Your task to perform on an android device: Go to wifi settings Image 0: 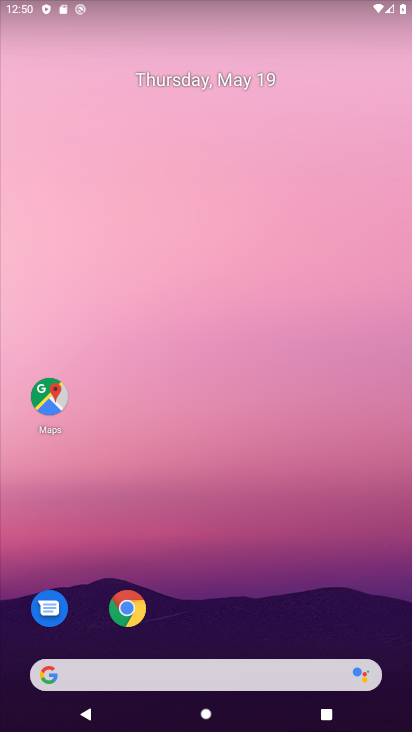
Step 0: drag from (223, 650) to (240, 227)
Your task to perform on an android device: Go to wifi settings Image 1: 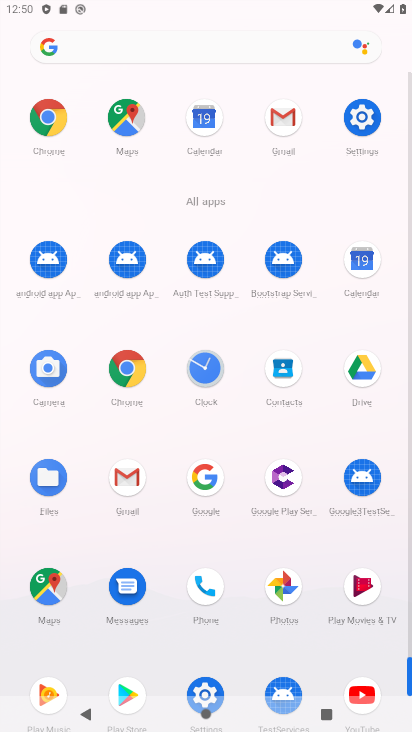
Step 1: click (363, 125)
Your task to perform on an android device: Go to wifi settings Image 2: 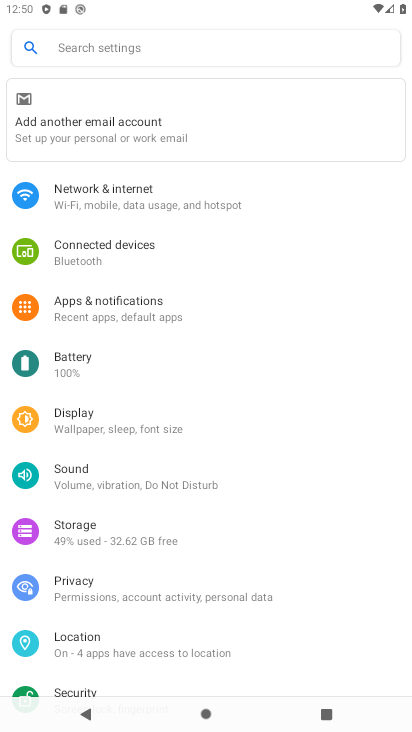
Step 2: click (170, 202)
Your task to perform on an android device: Go to wifi settings Image 3: 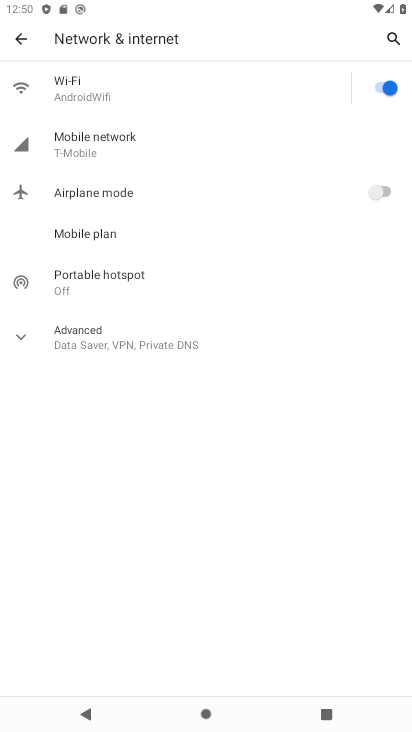
Step 3: click (109, 94)
Your task to perform on an android device: Go to wifi settings Image 4: 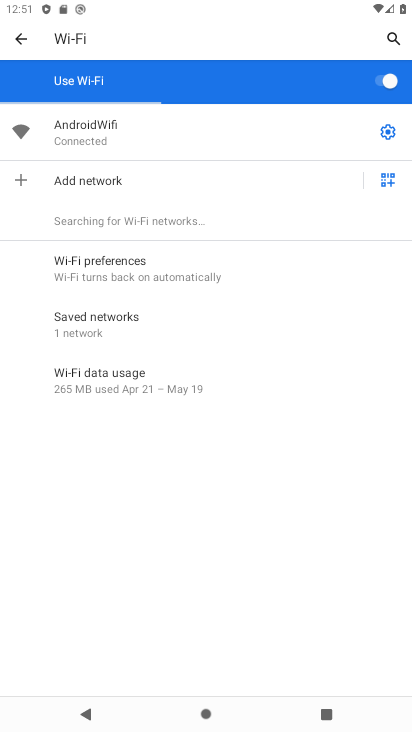
Step 4: task complete